Your task to perform on an android device: toggle pop-ups in chrome Image 0: 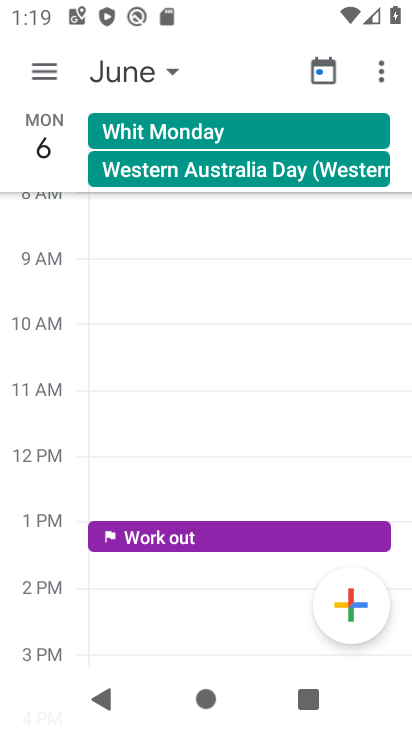
Step 0: press home button
Your task to perform on an android device: toggle pop-ups in chrome Image 1: 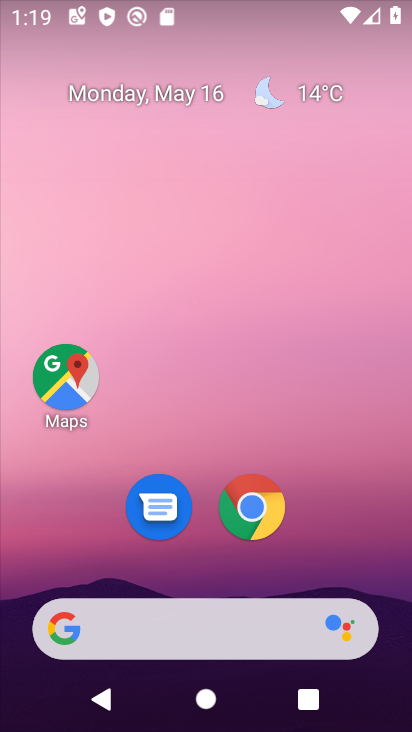
Step 1: drag from (214, 546) to (316, 215)
Your task to perform on an android device: toggle pop-ups in chrome Image 2: 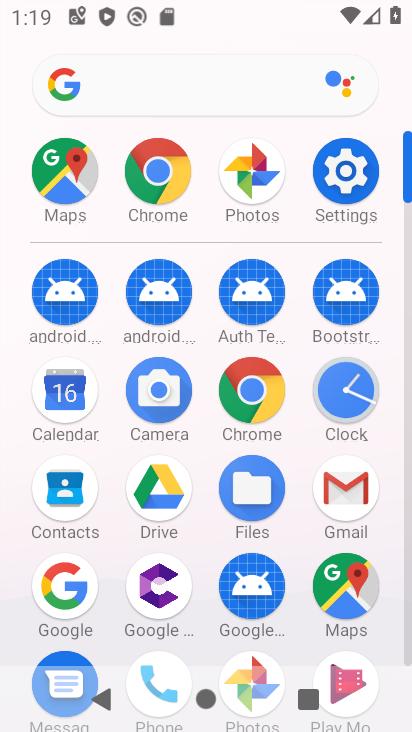
Step 2: click (253, 404)
Your task to perform on an android device: toggle pop-ups in chrome Image 3: 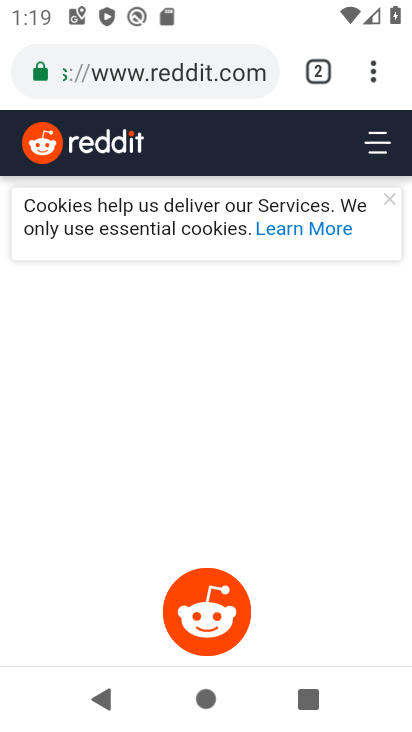
Step 3: click (381, 76)
Your task to perform on an android device: toggle pop-ups in chrome Image 4: 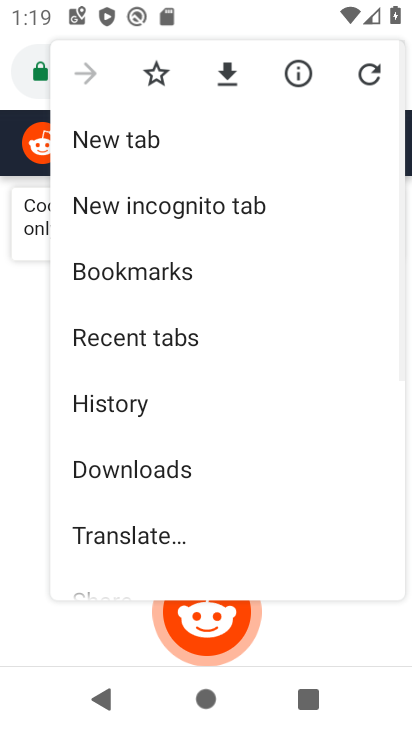
Step 4: drag from (171, 476) to (246, 193)
Your task to perform on an android device: toggle pop-ups in chrome Image 5: 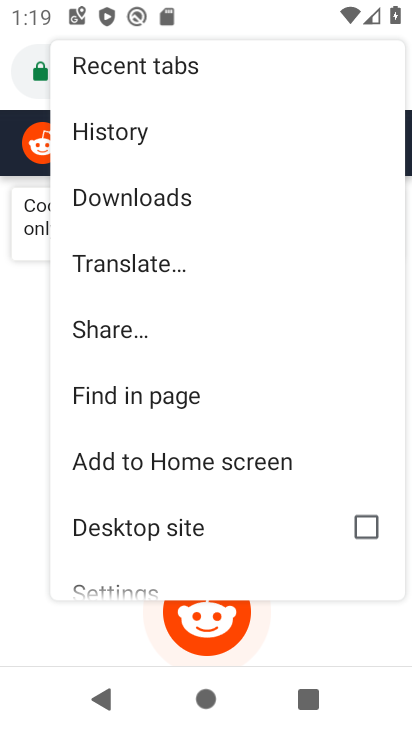
Step 5: drag from (187, 533) to (241, 288)
Your task to perform on an android device: toggle pop-ups in chrome Image 6: 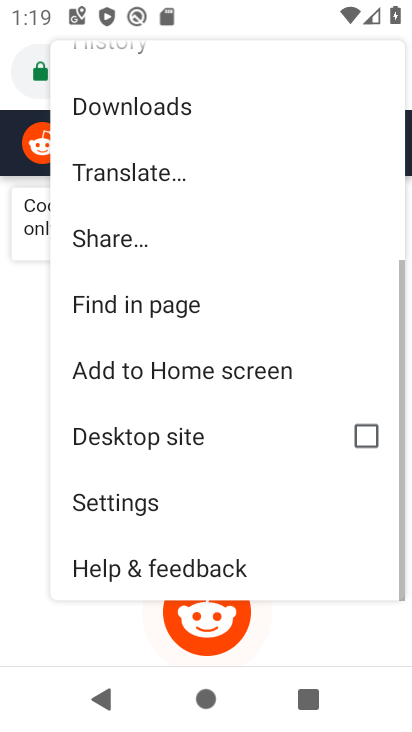
Step 6: click (196, 499)
Your task to perform on an android device: toggle pop-ups in chrome Image 7: 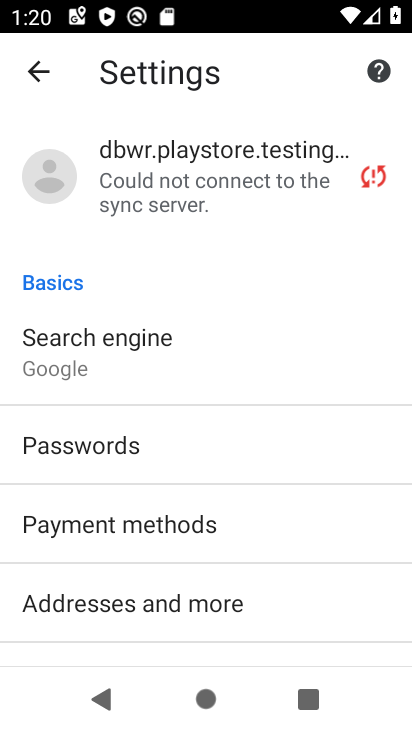
Step 7: drag from (156, 530) to (224, 150)
Your task to perform on an android device: toggle pop-ups in chrome Image 8: 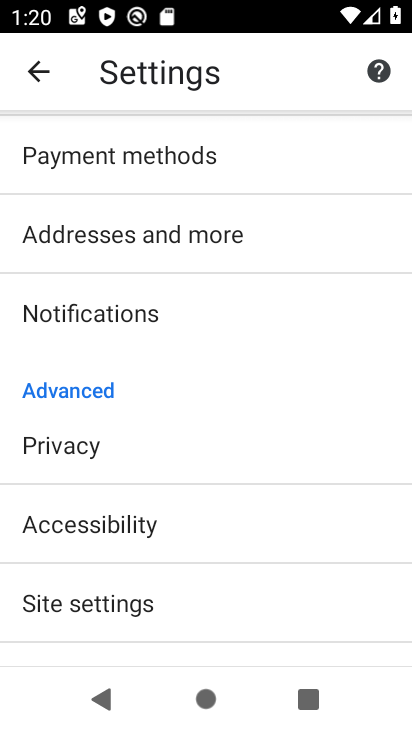
Step 8: click (164, 608)
Your task to perform on an android device: toggle pop-ups in chrome Image 9: 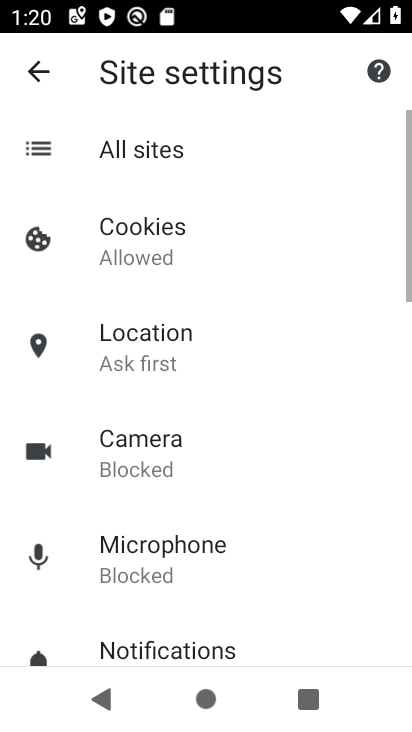
Step 9: drag from (171, 437) to (245, 197)
Your task to perform on an android device: toggle pop-ups in chrome Image 10: 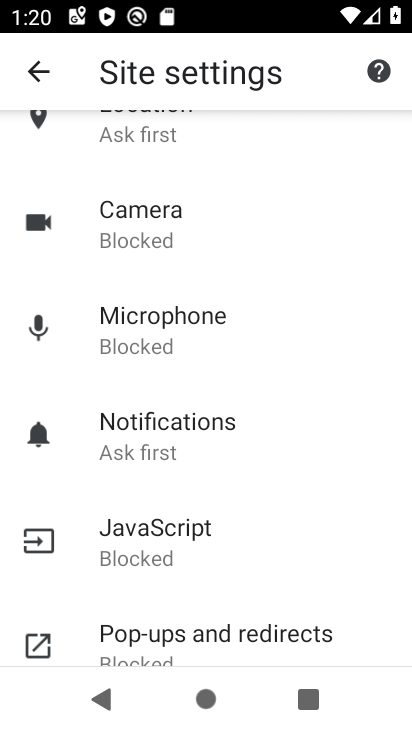
Step 10: click (204, 638)
Your task to perform on an android device: toggle pop-ups in chrome Image 11: 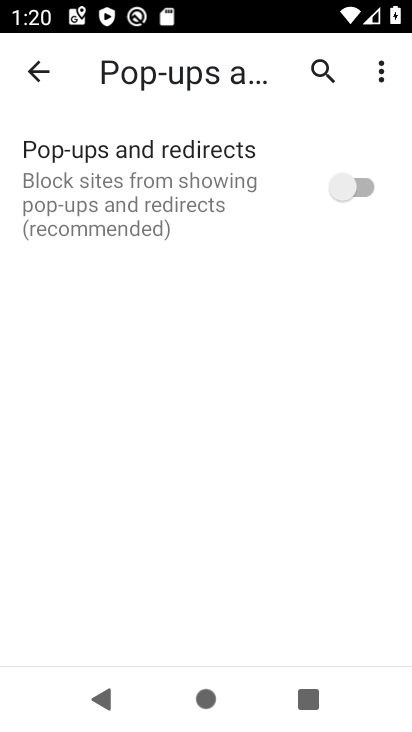
Step 11: click (335, 199)
Your task to perform on an android device: toggle pop-ups in chrome Image 12: 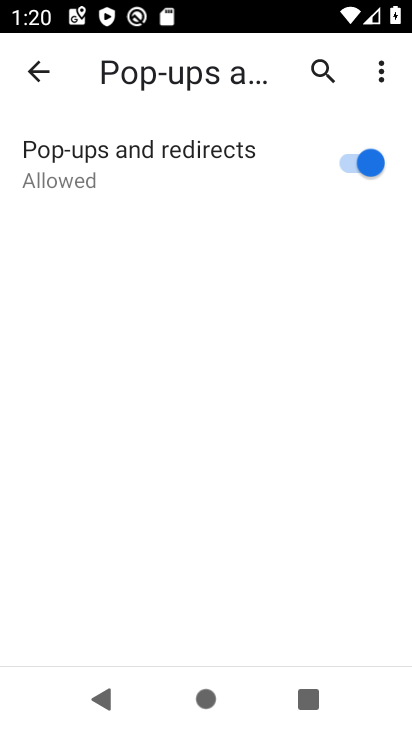
Step 12: task complete